Your task to perform on an android device: Go to Amazon Image 0: 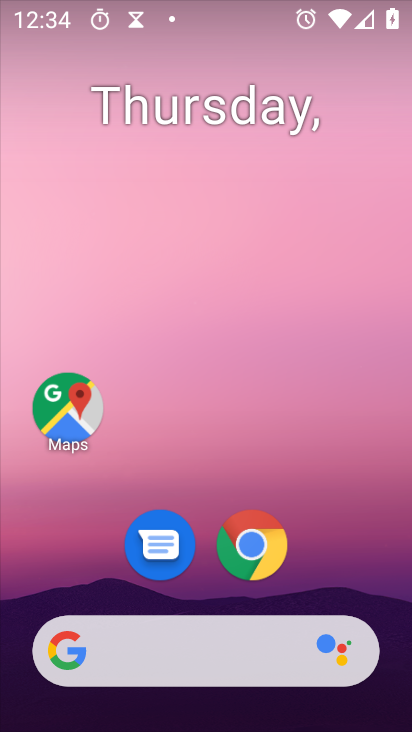
Step 0: press home button
Your task to perform on an android device: Go to Amazon Image 1: 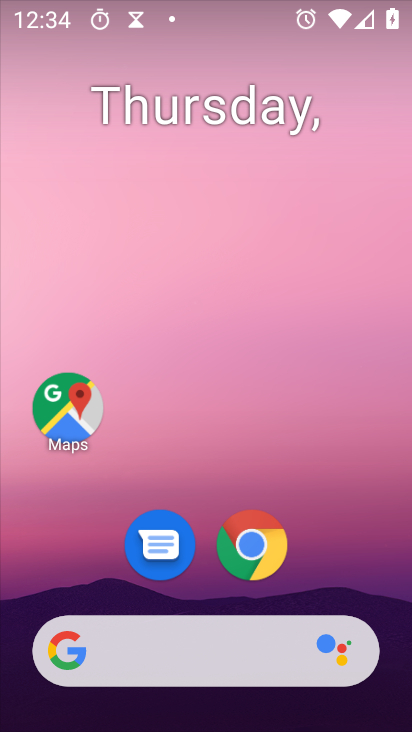
Step 1: click (265, 557)
Your task to perform on an android device: Go to Amazon Image 2: 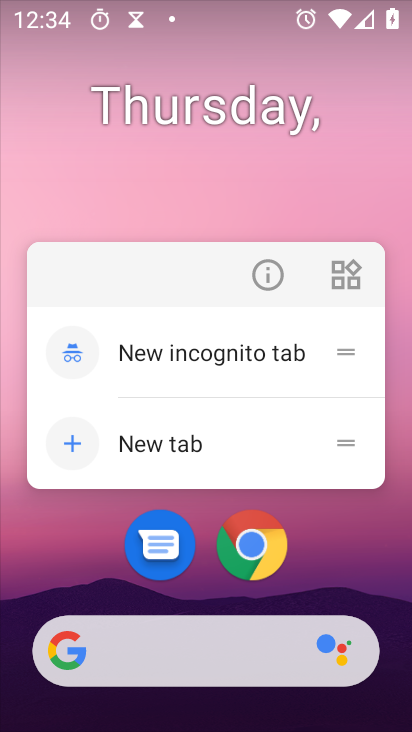
Step 2: click (257, 549)
Your task to perform on an android device: Go to Amazon Image 3: 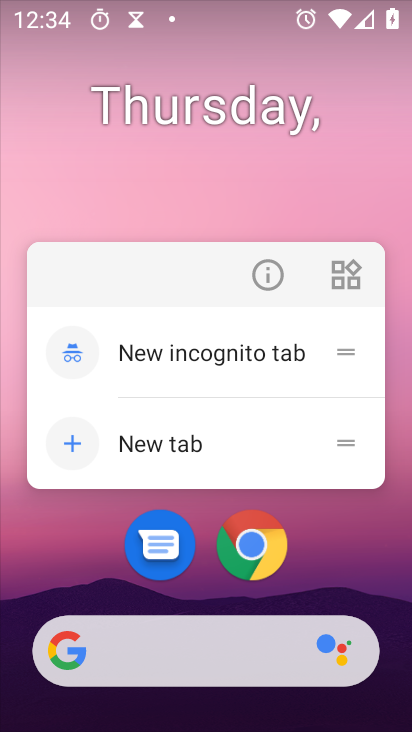
Step 3: click (252, 553)
Your task to perform on an android device: Go to Amazon Image 4: 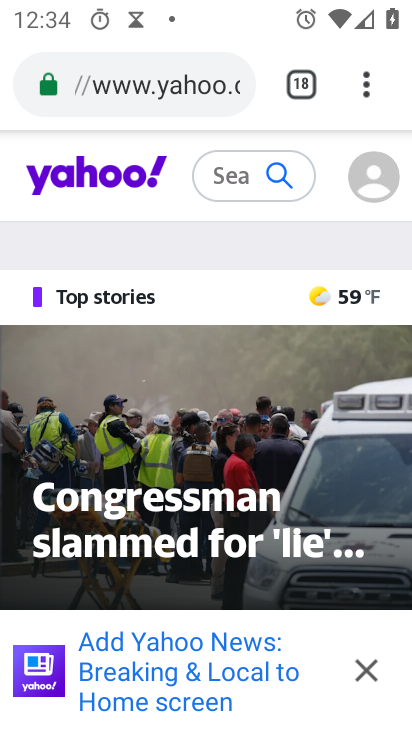
Step 4: drag from (369, 85) to (178, 176)
Your task to perform on an android device: Go to Amazon Image 5: 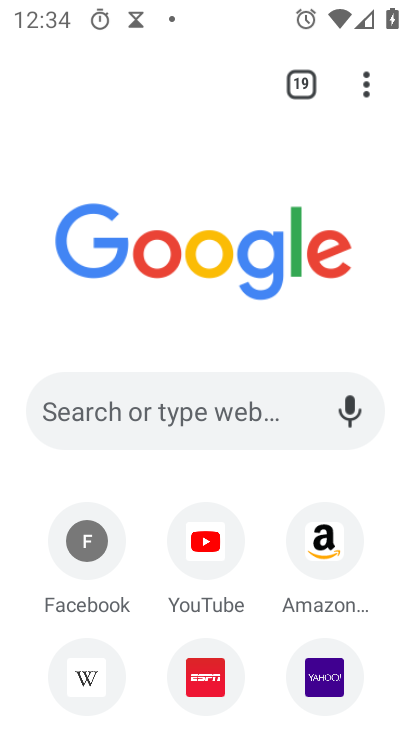
Step 5: click (332, 542)
Your task to perform on an android device: Go to Amazon Image 6: 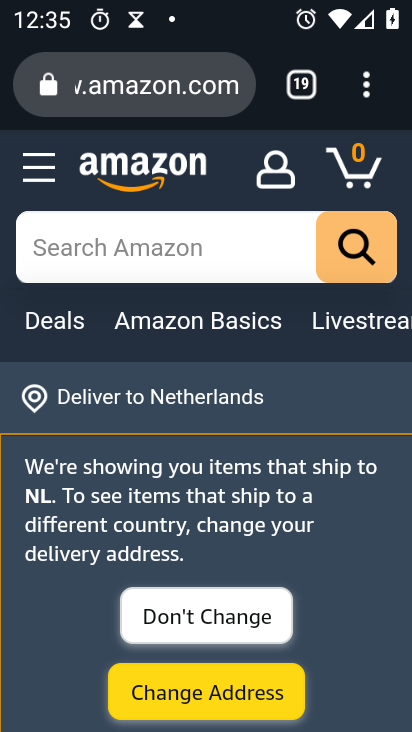
Step 6: task complete